Your task to perform on an android device: turn on bluetooth scan Image 0: 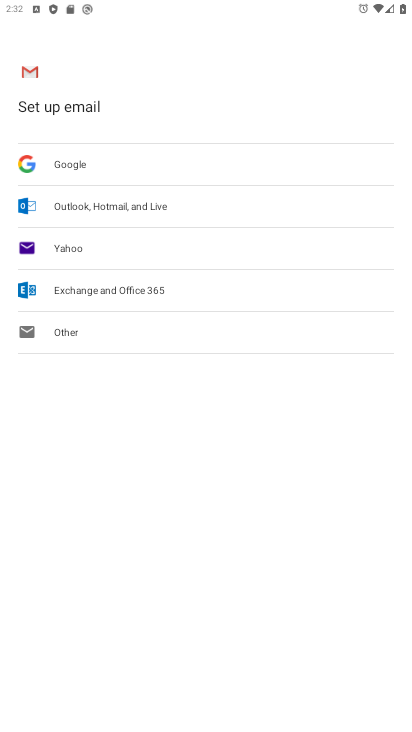
Step 0: press home button
Your task to perform on an android device: turn on bluetooth scan Image 1: 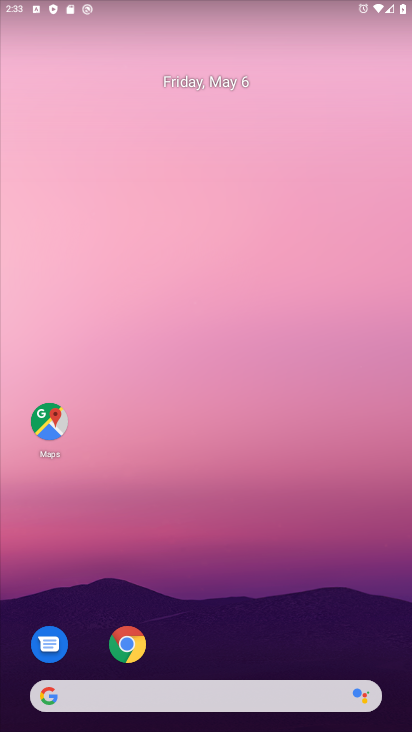
Step 1: drag from (156, 726) to (229, 183)
Your task to perform on an android device: turn on bluetooth scan Image 2: 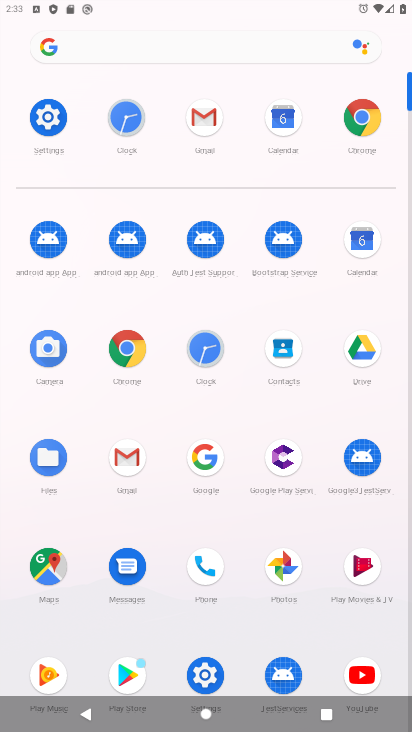
Step 2: click (50, 136)
Your task to perform on an android device: turn on bluetooth scan Image 3: 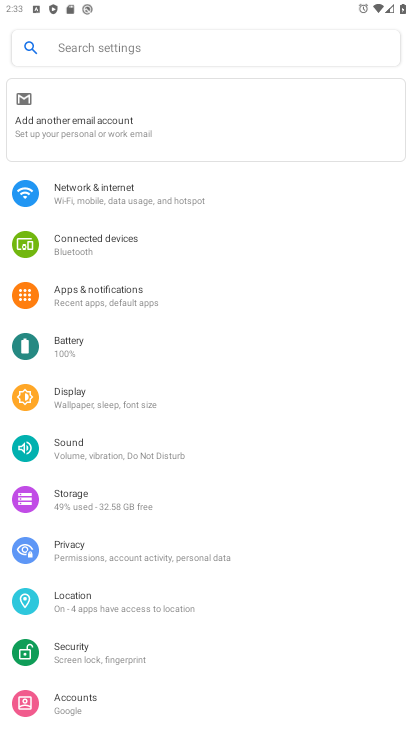
Step 3: click (86, 600)
Your task to perform on an android device: turn on bluetooth scan Image 4: 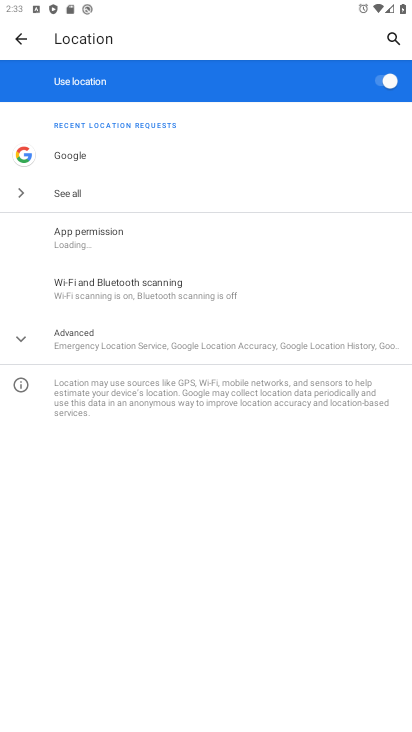
Step 4: click (166, 294)
Your task to perform on an android device: turn on bluetooth scan Image 5: 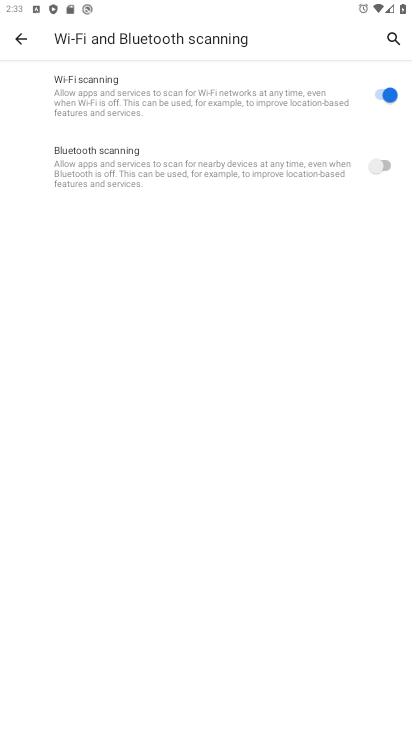
Step 5: click (381, 170)
Your task to perform on an android device: turn on bluetooth scan Image 6: 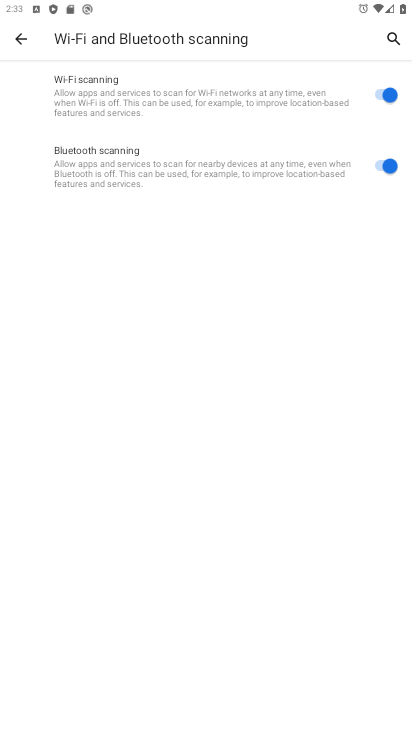
Step 6: task complete